Your task to perform on an android device: find photos in the google photos app Image 0: 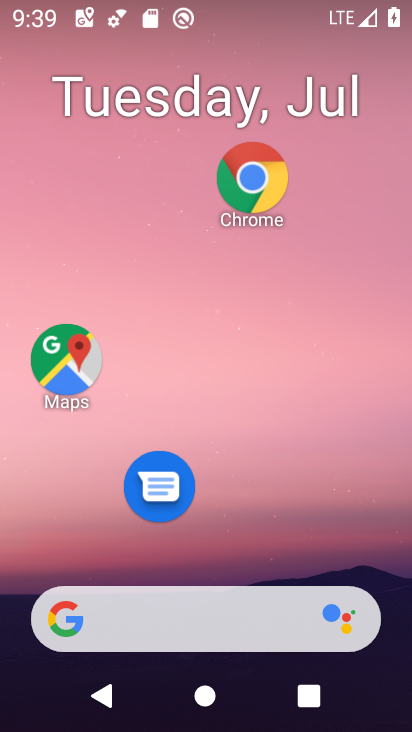
Step 0: drag from (301, 606) to (293, 0)
Your task to perform on an android device: find photos in the google photos app Image 1: 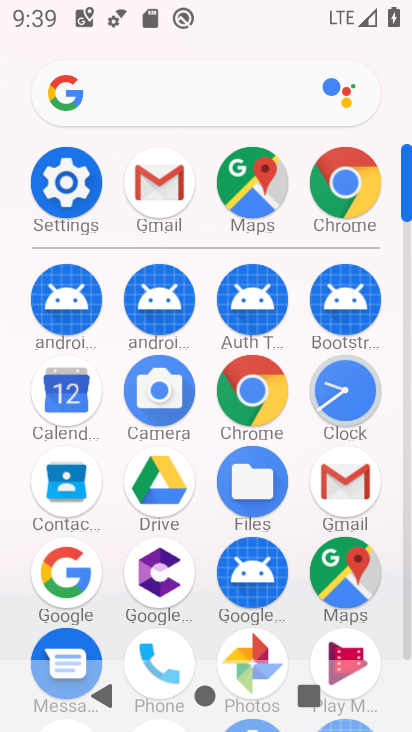
Step 1: drag from (216, 512) to (237, 167)
Your task to perform on an android device: find photos in the google photos app Image 2: 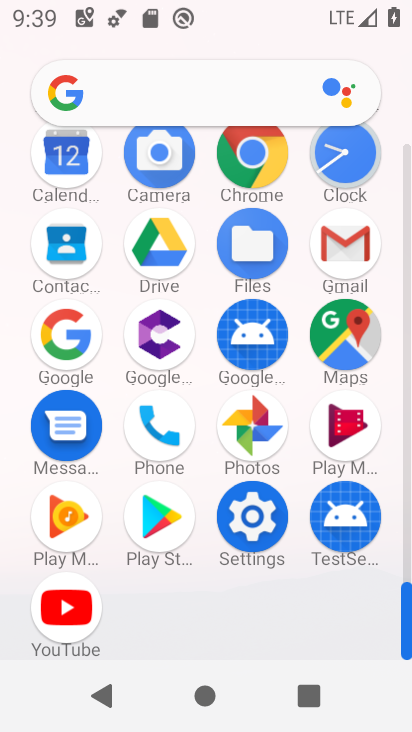
Step 2: click (248, 440)
Your task to perform on an android device: find photos in the google photos app Image 3: 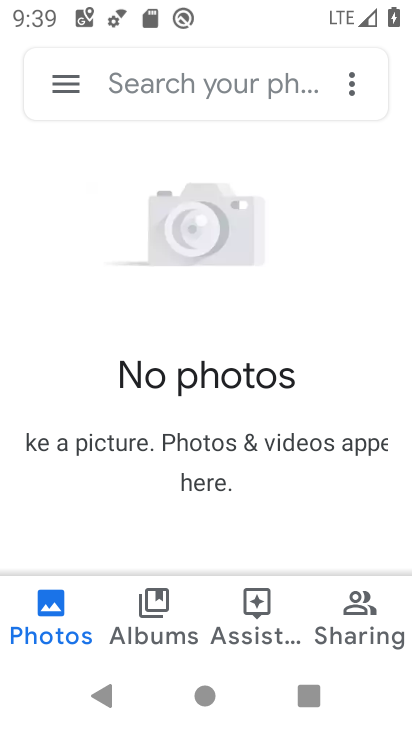
Step 3: click (43, 619)
Your task to perform on an android device: find photos in the google photos app Image 4: 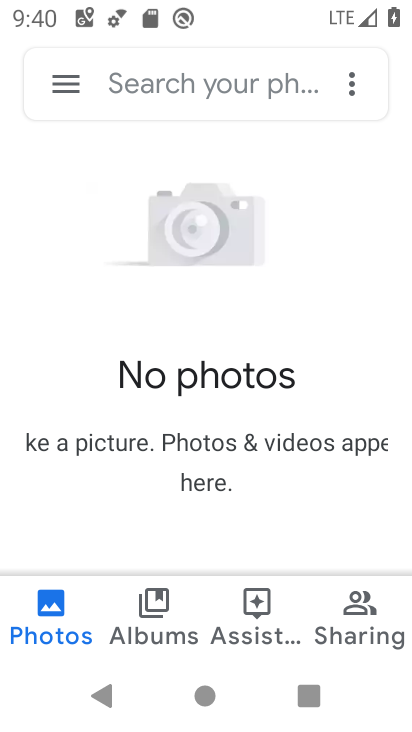
Step 4: task complete